Your task to perform on an android device: choose inbox layout in the gmail app Image 0: 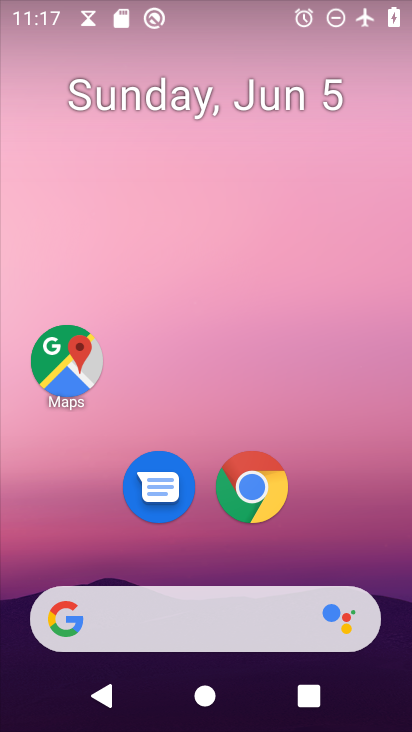
Step 0: drag from (336, 448) to (329, 229)
Your task to perform on an android device: choose inbox layout in the gmail app Image 1: 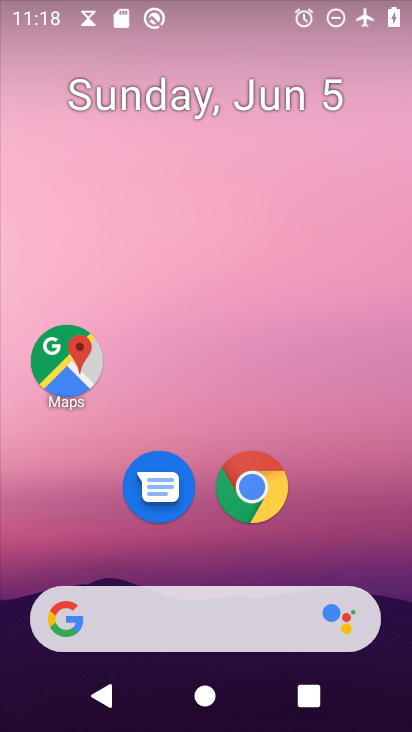
Step 1: drag from (307, 523) to (286, 256)
Your task to perform on an android device: choose inbox layout in the gmail app Image 2: 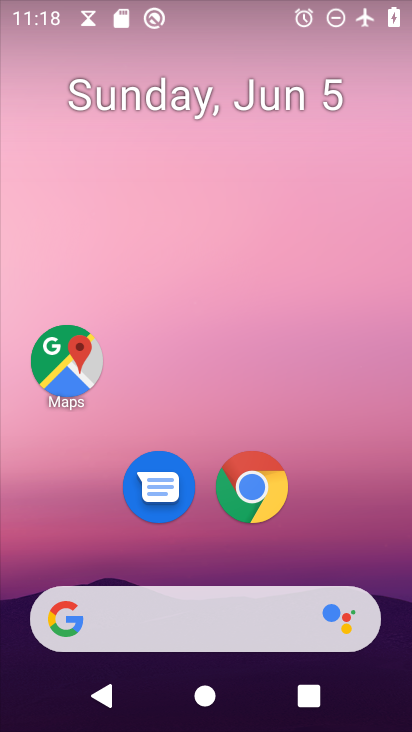
Step 2: click (181, 169)
Your task to perform on an android device: choose inbox layout in the gmail app Image 3: 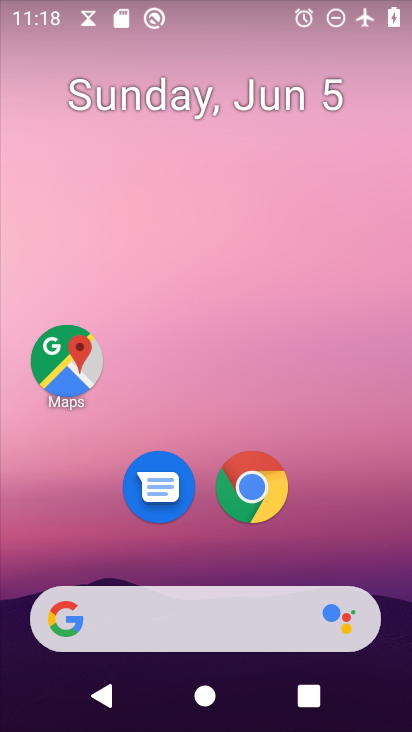
Step 3: drag from (210, 373) to (224, 196)
Your task to perform on an android device: choose inbox layout in the gmail app Image 4: 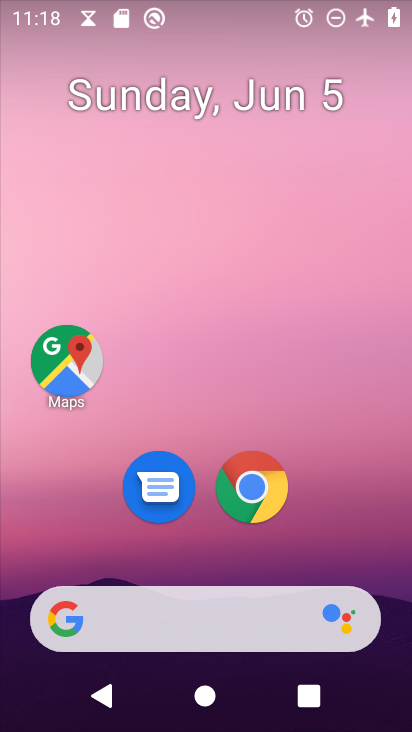
Step 4: drag from (179, 565) to (187, 179)
Your task to perform on an android device: choose inbox layout in the gmail app Image 5: 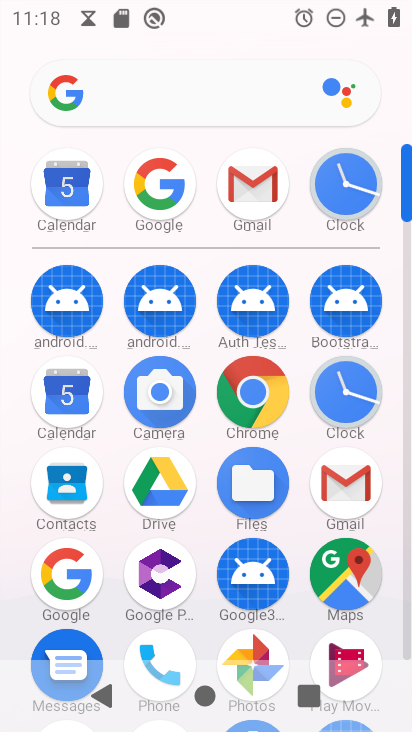
Step 5: drag from (210, 506) to (227, 216)
Your task to perform on an android device: choose inbox layout in the gmail app Image 6: 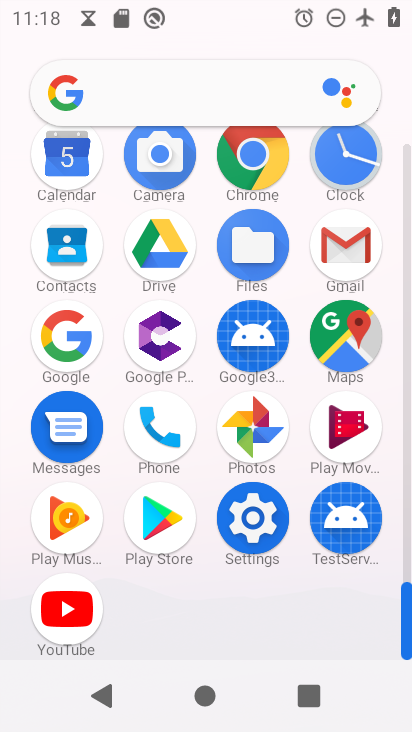
Step 6: click (332, 242)
Your task to perform on an android device: choose inbox layout in the gmail app Image 7: 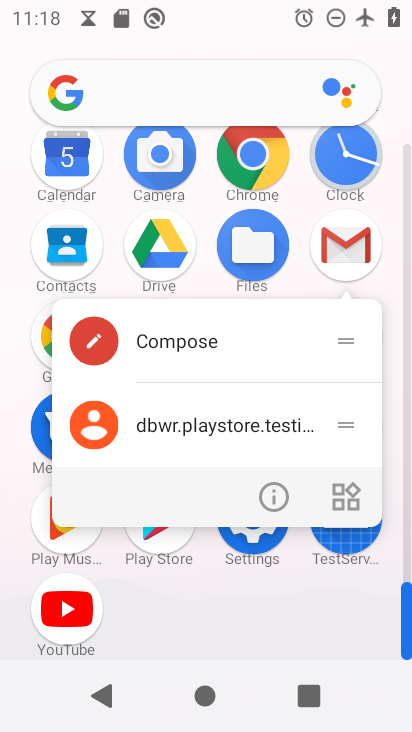
Step 7: click (333, 240)
Your task to perform on an android device: choose inbox layout in the gmail app Image 8: 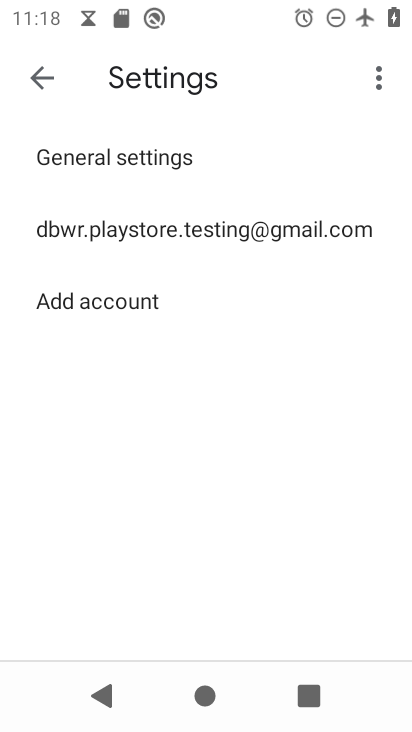
Step 8: click (126, 227)
Your task to perform on an android device: choose inbox layout in the gmail app Image 9: 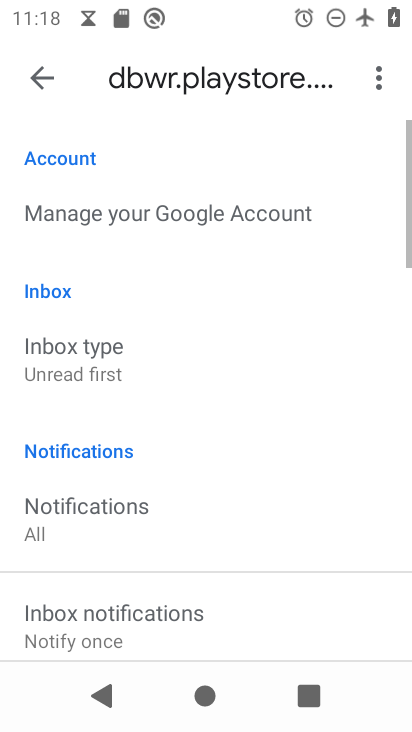
Step 9: click (65, 375)
Your task to perform on an android device: choose inbox layout in the gmail app Image 10: 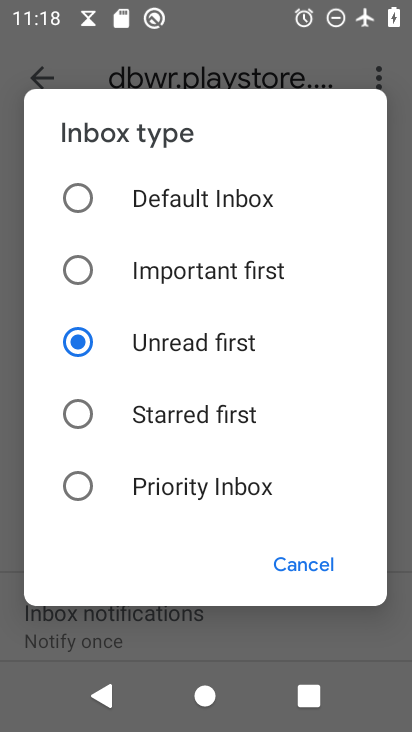
Step 10: click (170, 475)
Your task to perform on an android device: choose inbox layout in the gmail app Image 11: 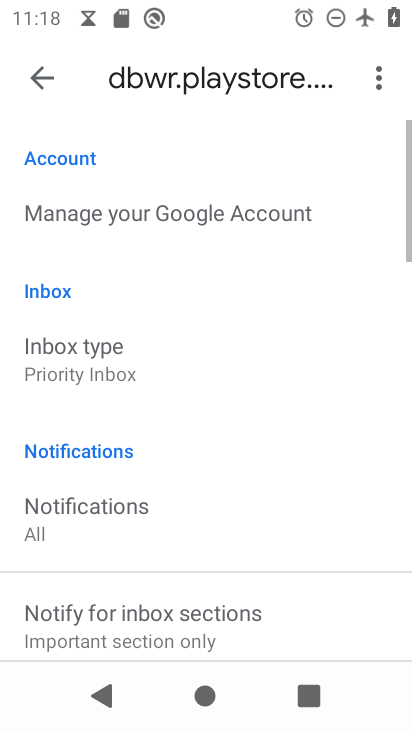
Step 11: task complete